Your task to perform on an android device: Show me the alarms in the clock app Image 0: 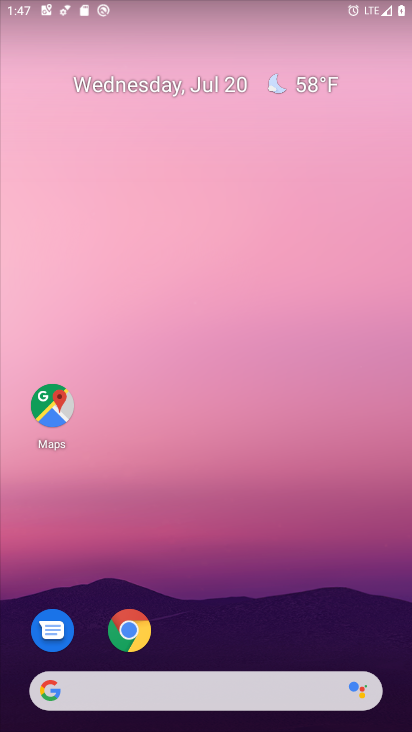
Step 0: drag from (212, 689) to (258, 196)
Your task to perform on an android device: Show me the alarms in the clock app Image 1: 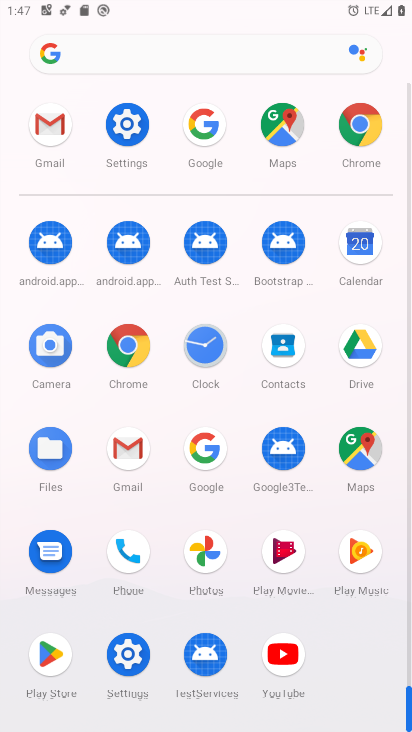
Step 1: click (127, 356)
Your task to perform on an android device: Show me the alarms in the clock app Image 2: 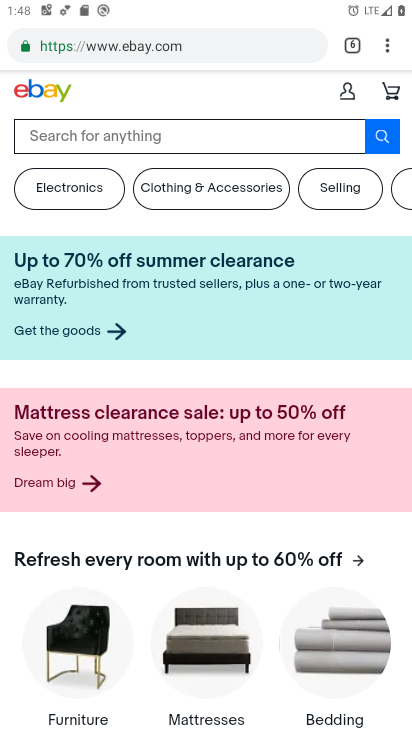
Step 2: press home button
Your task to perform on an android device: Show me the alarms in the clock app Image 3: 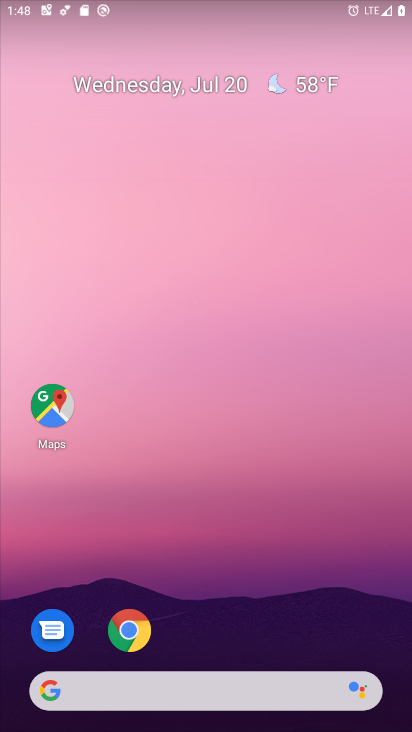
Step 3: drag from (231, 632) to (296, 166)
Your task to perform on an android device: Show me the alarms in the clock app Image 4: 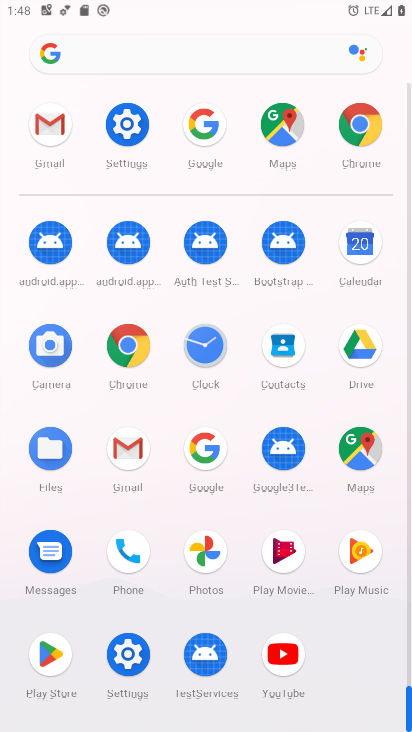
Step 4: click (186, 356)
Your task to perform on an android device: Show me the alarms in the clock app Image 5: 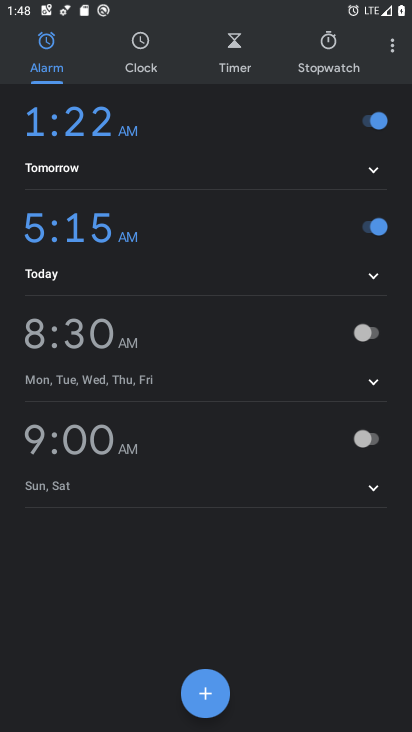
Step 5: task complete